Your task to perform on an android device: choose inbox layout in the gmail app Image 0: 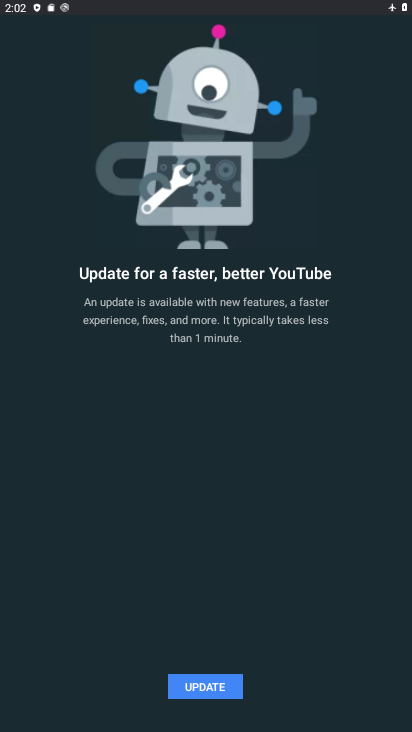
Step 0: press back button
Your task to perform on an android device: choose inbox layout in the gmail app Image 1: 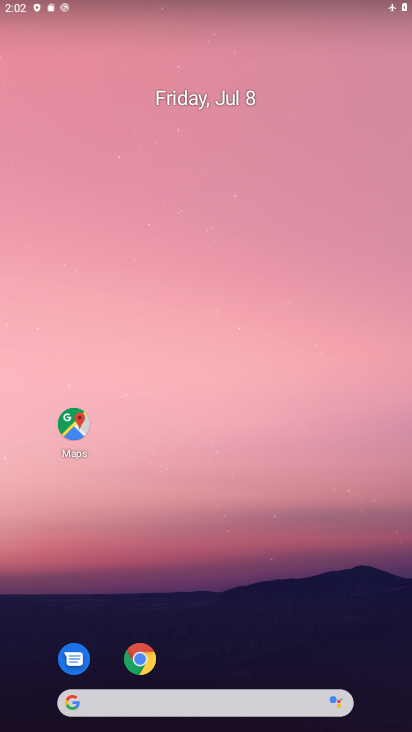
Step 1: drag from (15, 642) to (249, 208)
Your task to perform on an android device: choose inbox layout in the gmail app Image 2: 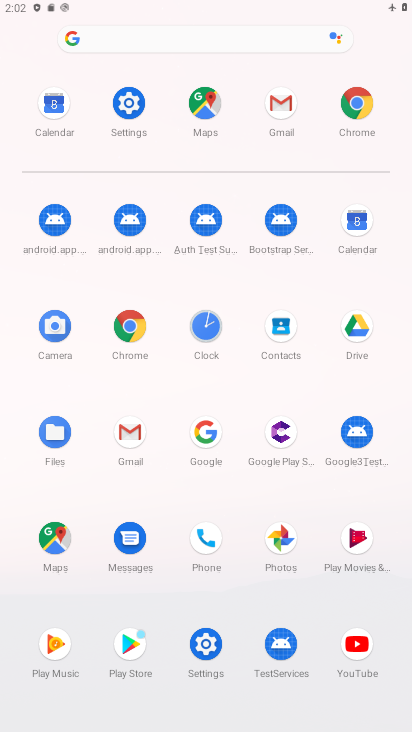
Step 2: click (287, 104)
Your task to perform on an android device: choose inbox layout in the gmail app Image 3: 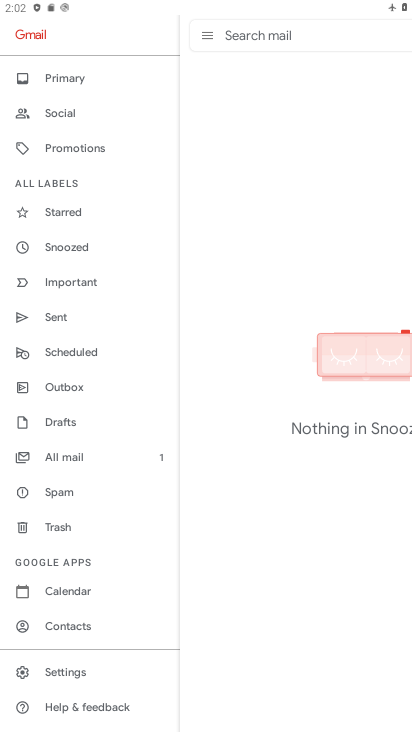
Step 3: task complete